Your task to perform on an android device: Open Reddit.com Image 0: 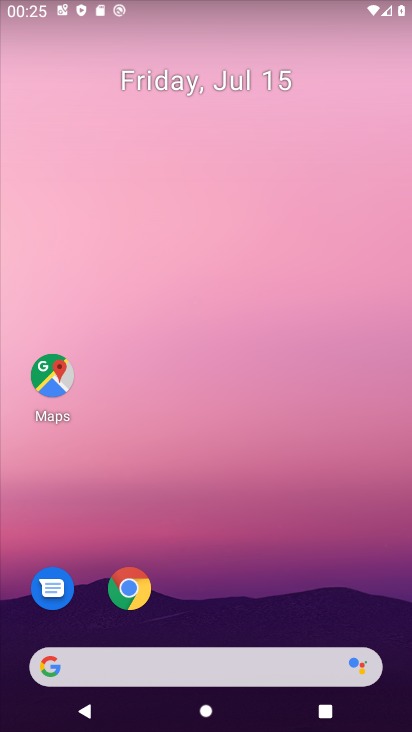
Step 0: click (126, 581)
Your task to perform on an android device: Open Reddit.com Image 1: 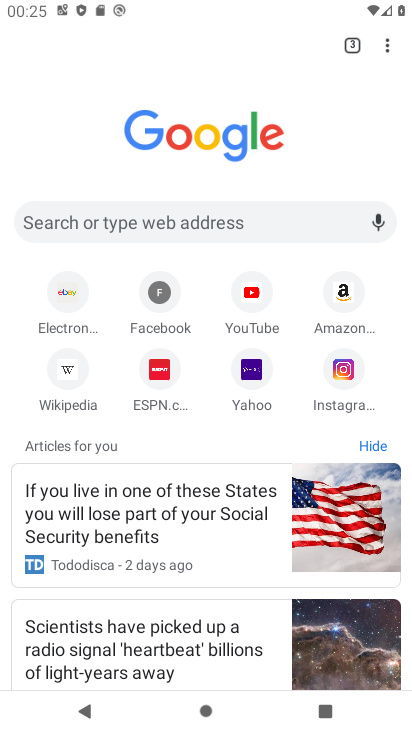
Step 1: click (149, 219)
Your task to perform on an android device: Open Reddit.com Image 2: 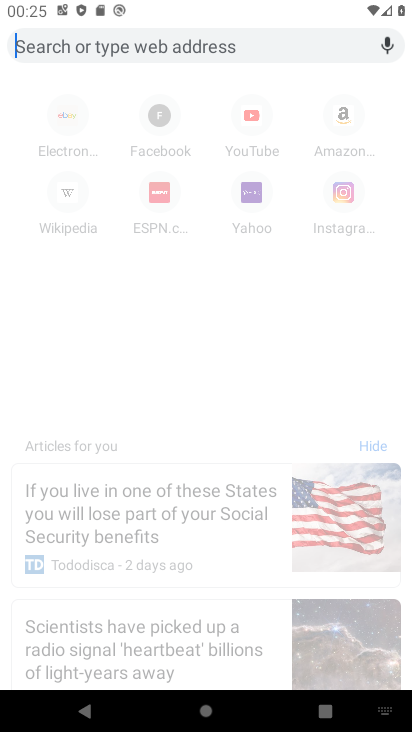
Step 2: type "reddit.com"
Your task to perform on an android device: Open Reddit.com Image 3: 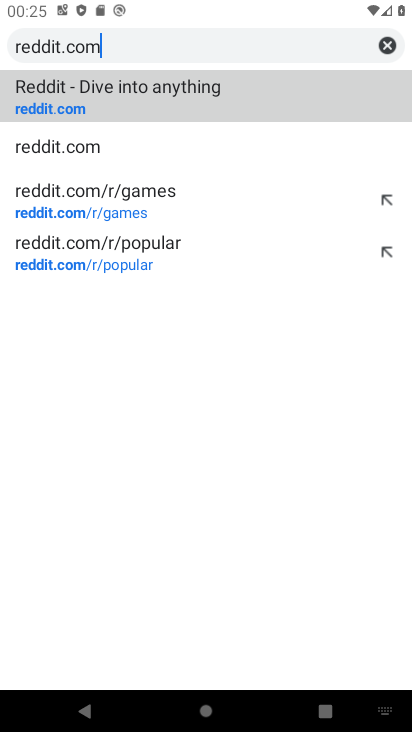
Step 3: click (63, 91)
Your task to perform on an android device: Open Reddit.com Image 4: 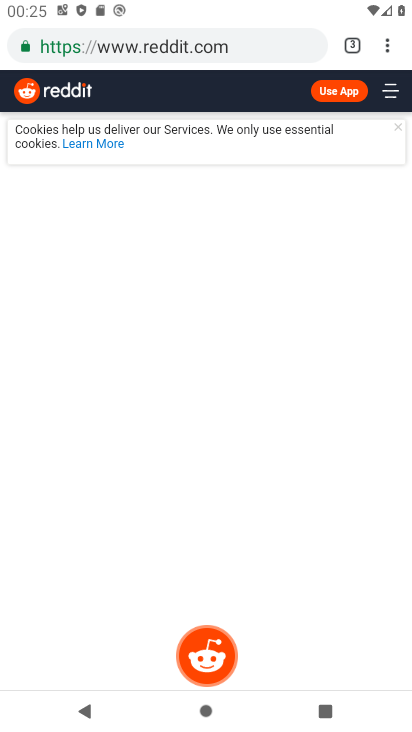
Step 4: task complete